Your task to perform on an android device: move a message to another label in the gmail app Image 0: 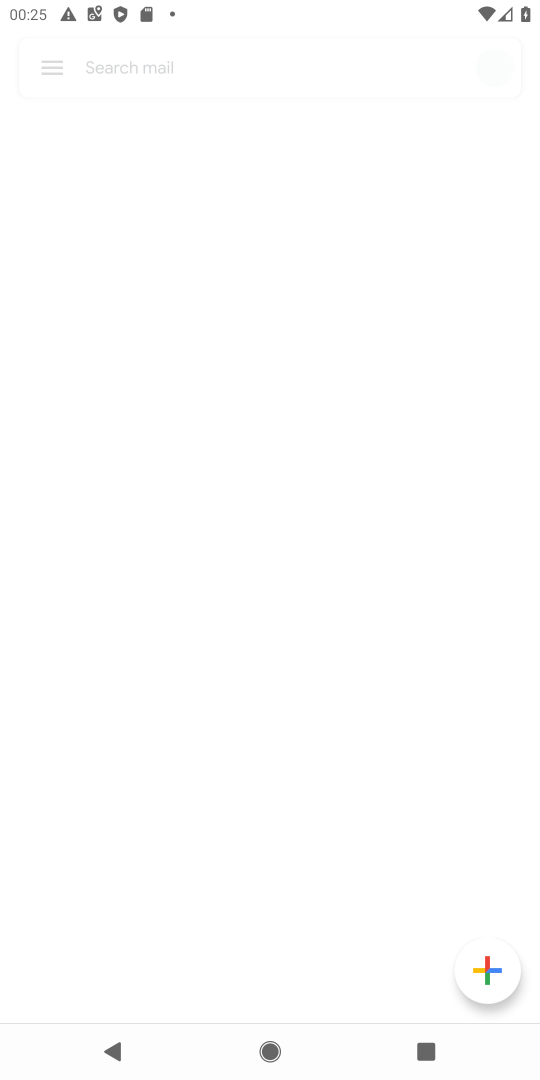
Step 0: press home button
Your task to perform on an android device: move a message to another label in the gmail app Image 1: 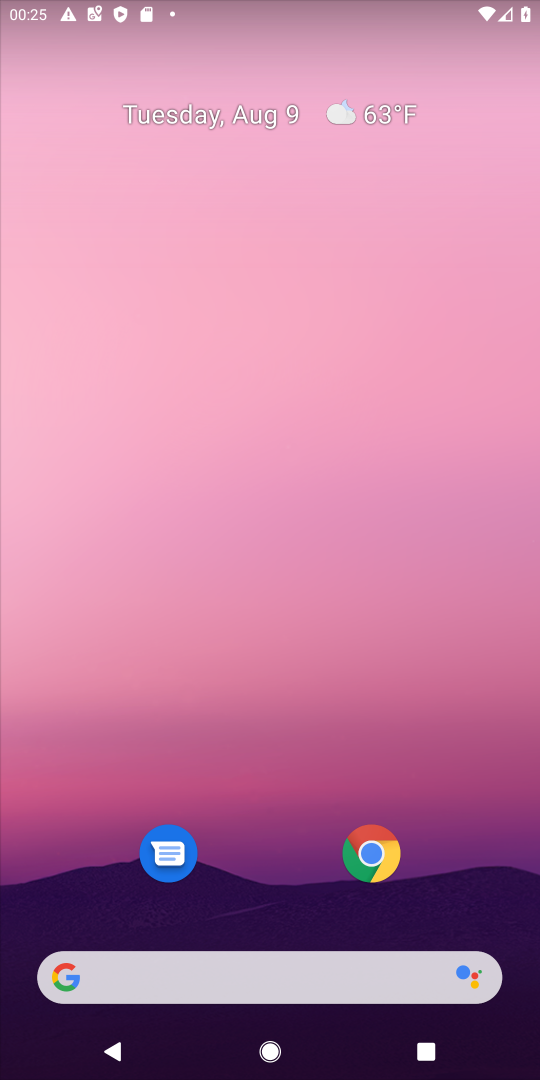
Step 1: drag from (295, 851) to (263, 249)
Your task to perform on an android device: move a message to another label in the gmail app Image 2: 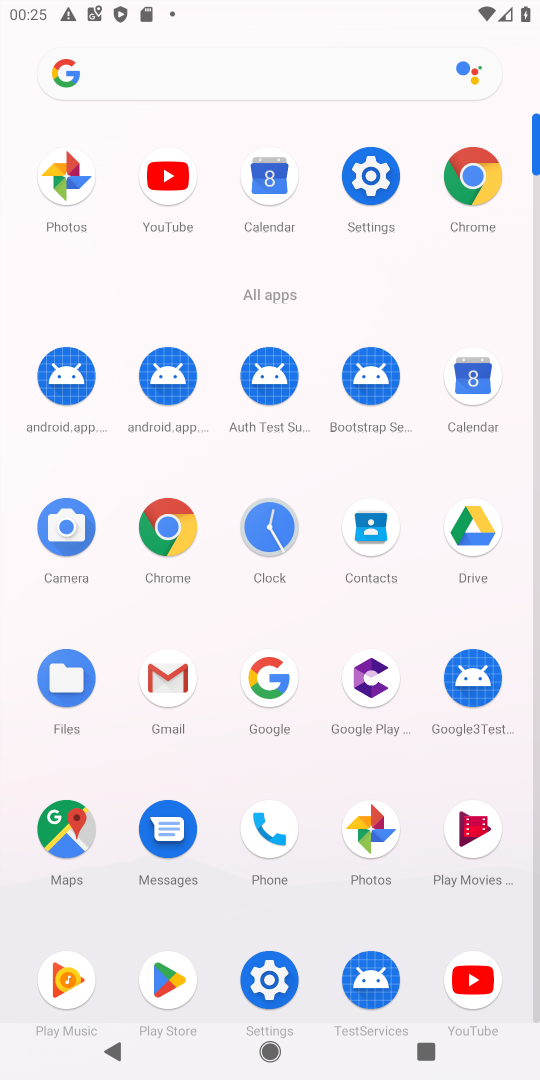
Step 2: click (177, 669)
Your task to perform on an android device: move a message to another label in the gmail app Image 3: 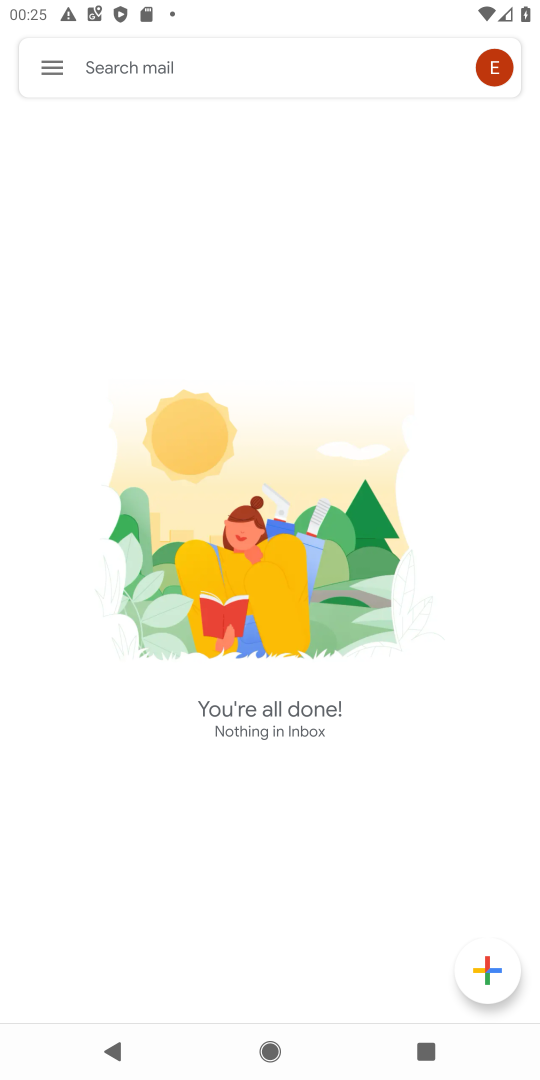
Step 3: click (42, 74)
Your task to perform on an android device: move a message to another label in the gmail app Image 4: 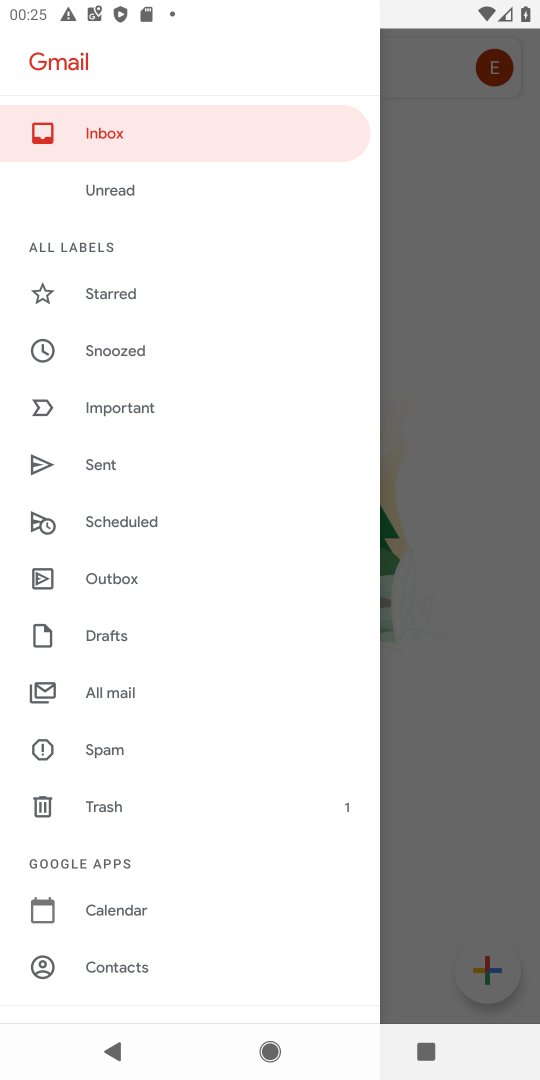
Step 4: click (117, 692)
Your task to perform on an android device: move a message to another label in the gmail app Image 5: 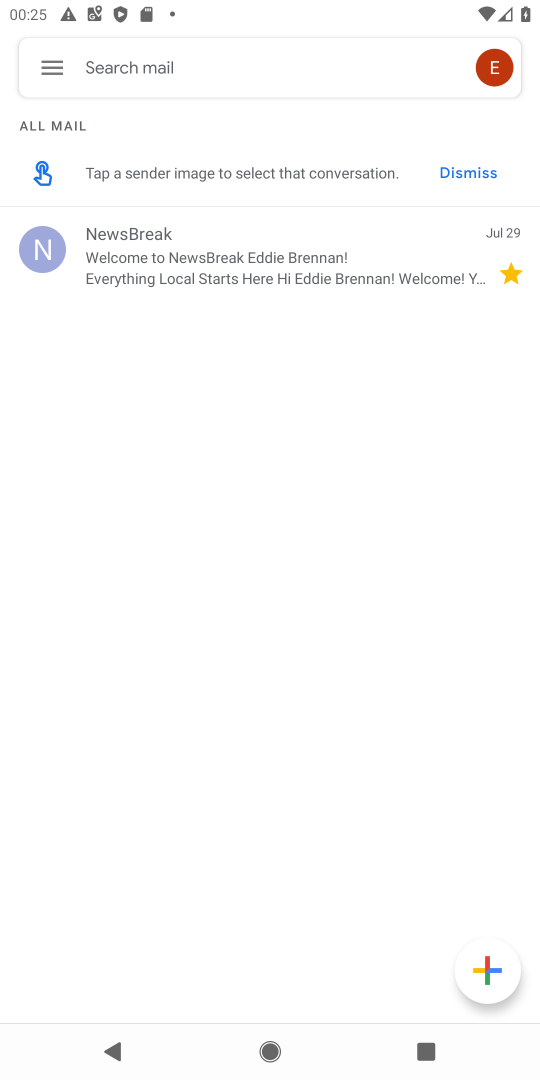
Step 5: click (260, 262)
Your task to perform on an android device: move a message to another label in the gmail app Image 6: 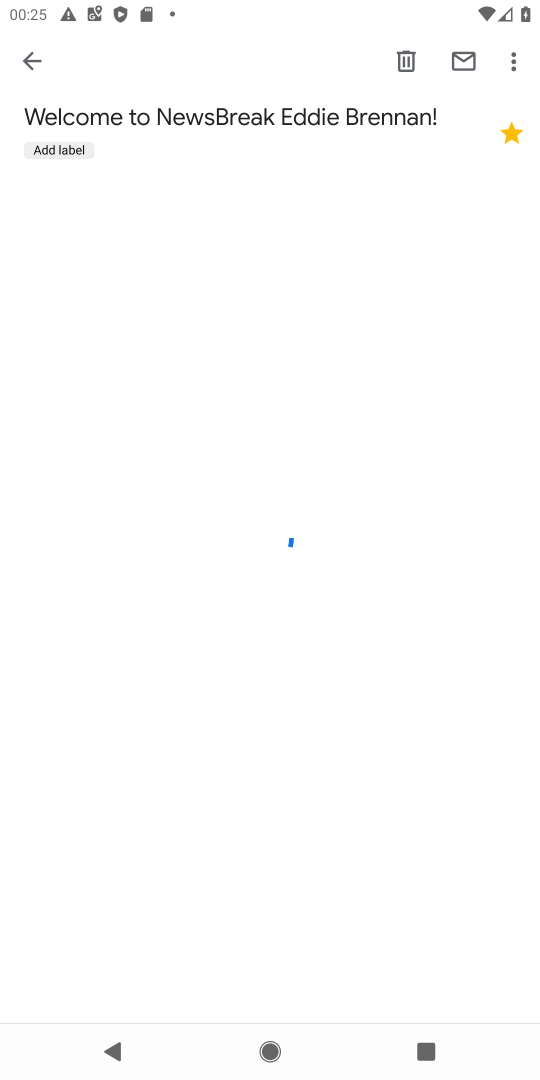
Step 6: click (518, 65)
Your task to perform on an android device: move a message to another label in the gmail app Image 7: 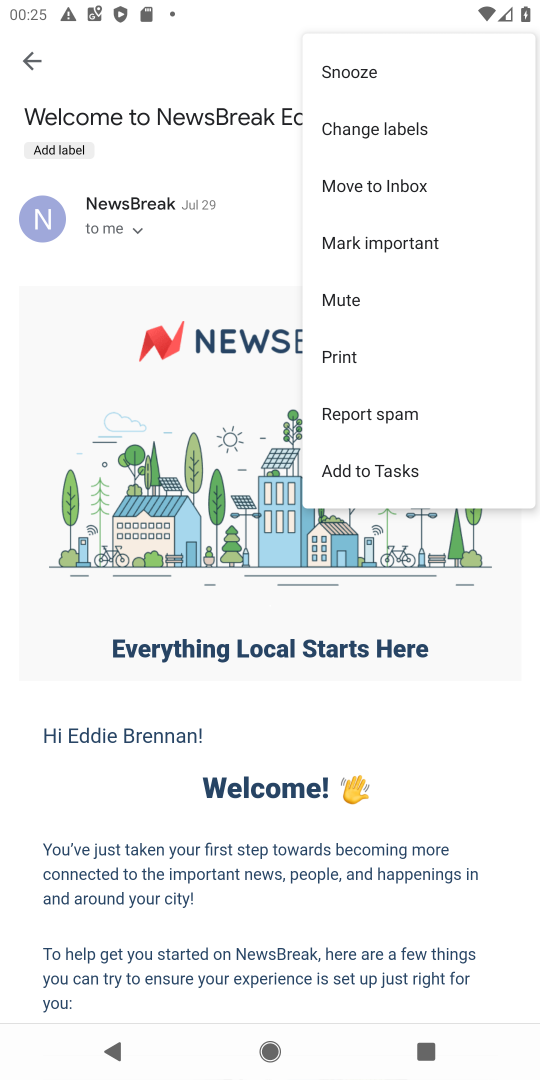
Step 7: click (411, 126)
Your task to perform on an android device: move a message to another label in the gmail app Image 8: 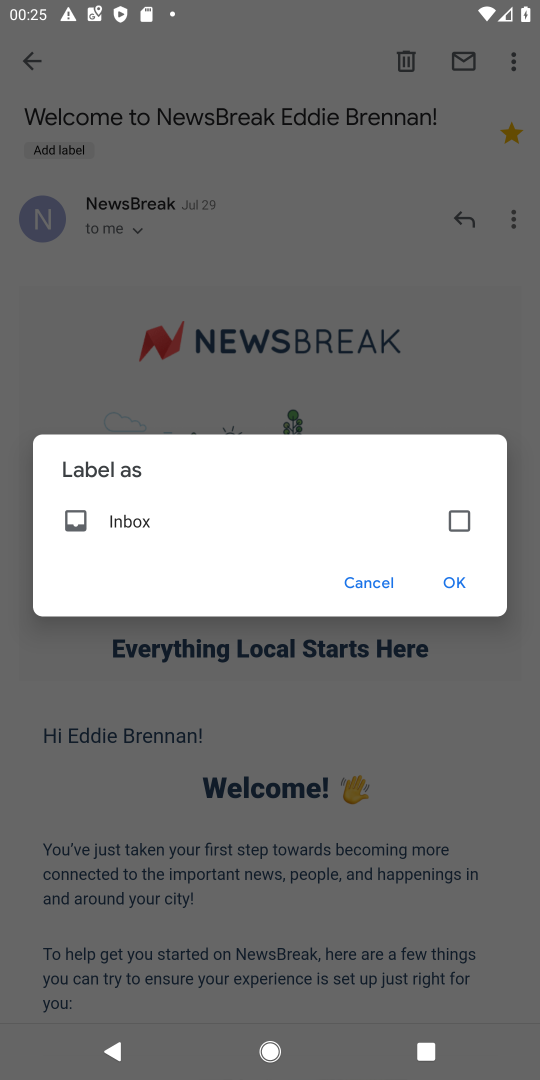
Step 8: click (449, 528)
Your task to perform on an android device: move a message to another label in the gmail app Image 9: 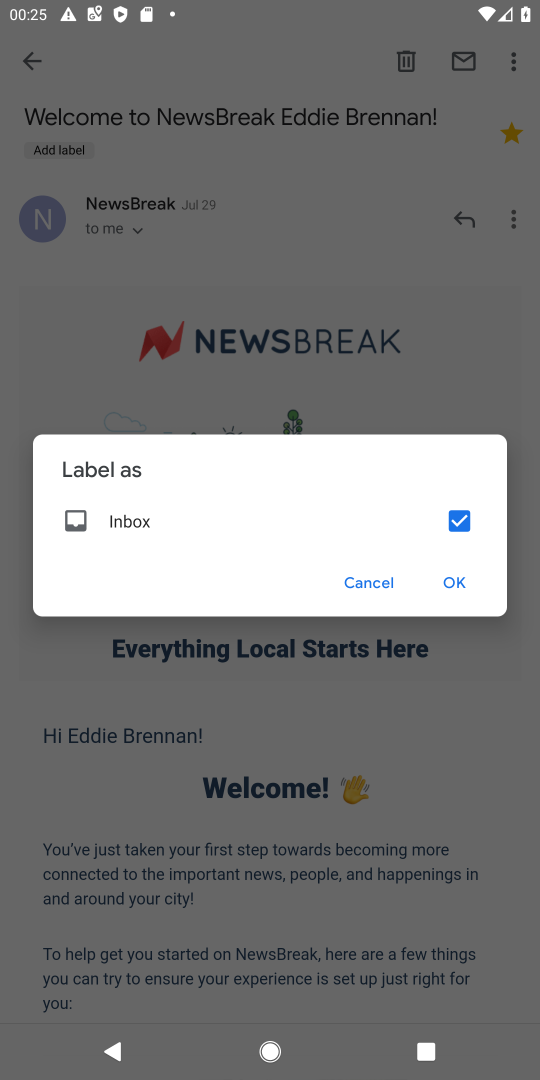
Step 9: click (465, 574)
Your task to perform on an android device: move a message to another label in the gmail app Image 10: 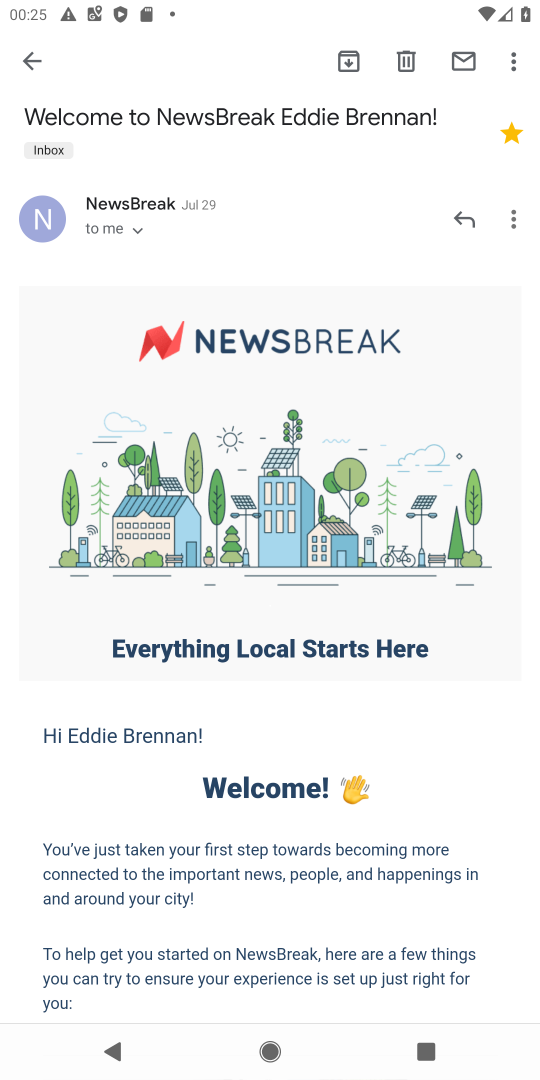
Step 10: task complete